Your task to perform on an android device: stop showing notifications on the lock screen Image 0: 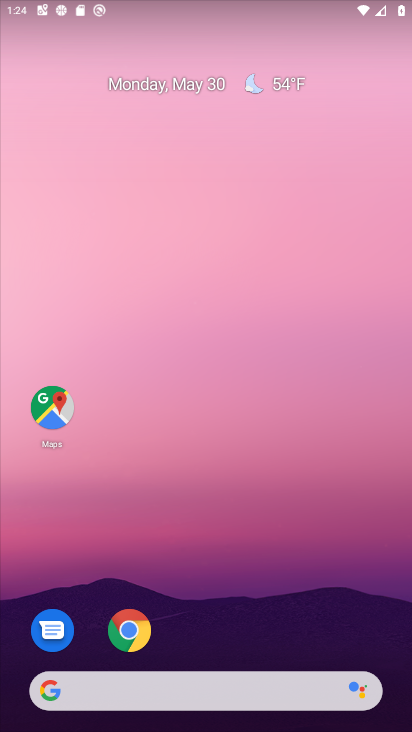
Step 0: press home button
Your task to perform on an android device: stop showing notifications on the lock screen Image 1: 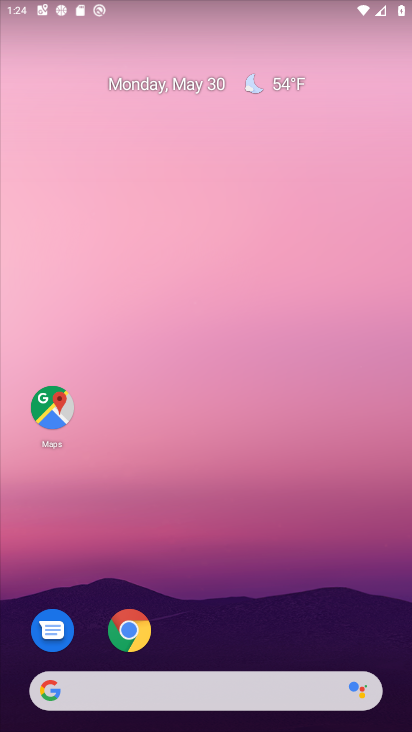
Step 1: drag from (165, 616) to (292, 93)
Your task to perform on an android device: stop showing notifications on the lock screen Image 2: 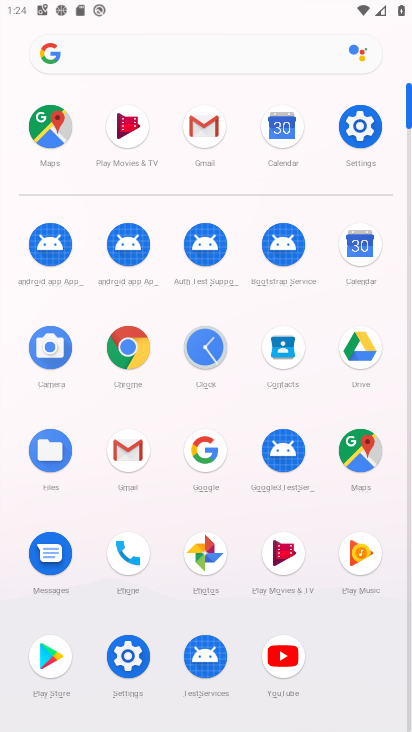
Step 2: click (363, 133)
Your task to perform on an android device: stop showing notifications on the lock screen Image 3: 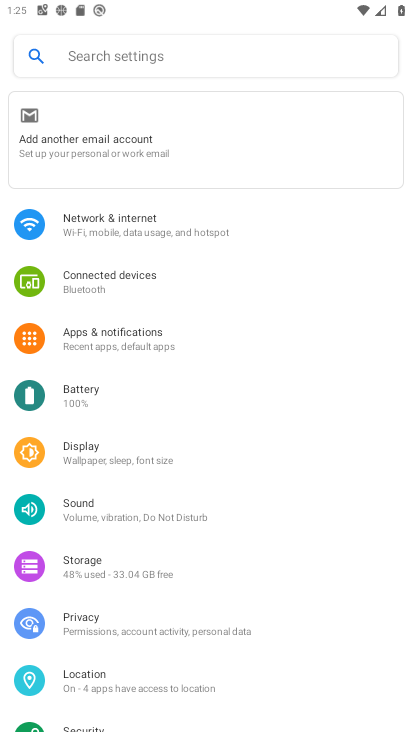
Step 3: click (119, 341)
Your task to perform on an android device: stop showing notifications on the lock screen Image 4: 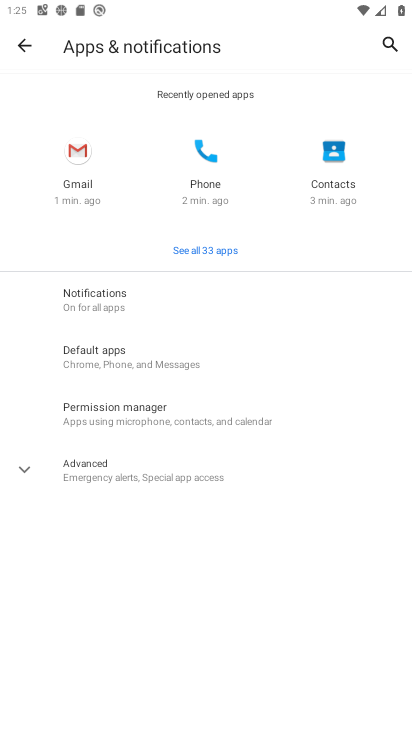
Step 4: click (76, 304)
Your task to perform on an android device: stop showing notifications on the lock screen Image 5: 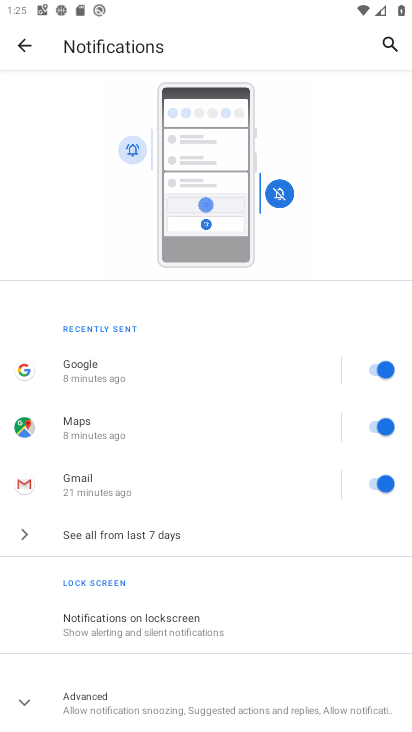
Step 5: click (165, 627)
Your task to perform on an android device: stop showing notifications on the lock screen Image 6: 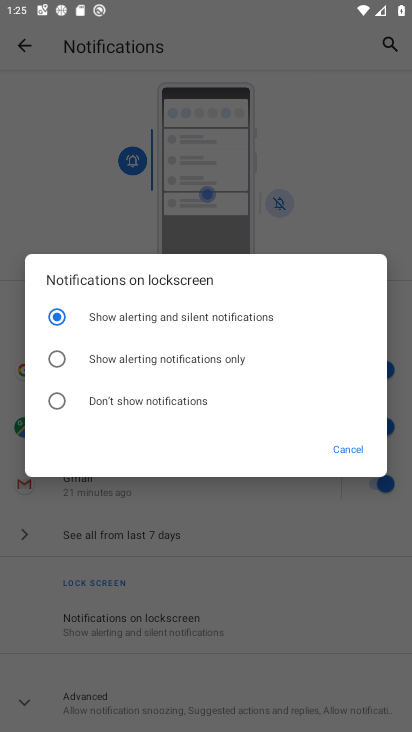
Step 6: click (58, 398)
Your task to perform on an android device: stop showing notifications on the lock screen Image 7: 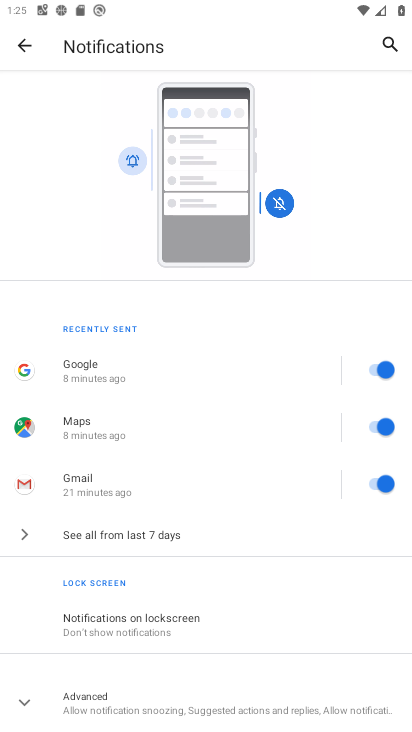
Step 7: task complete